Your task to perform on an android device: What's the weather? Image 0: 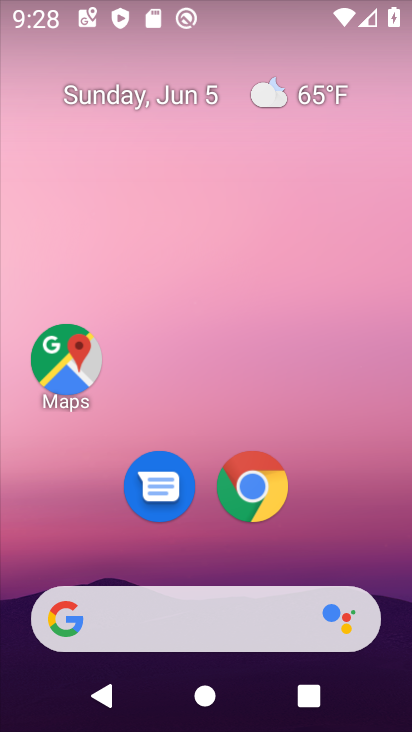
Step 0: drag from (345, 525) to (339, 215)
Your task to perform on an android device: What's the weather? Image 1: 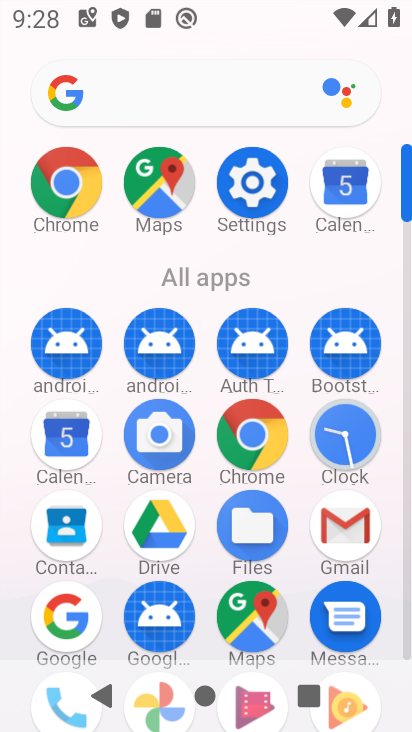
Step 1: click (78, 195)
Your task to perform on an android device: What's the weather? Image 2: 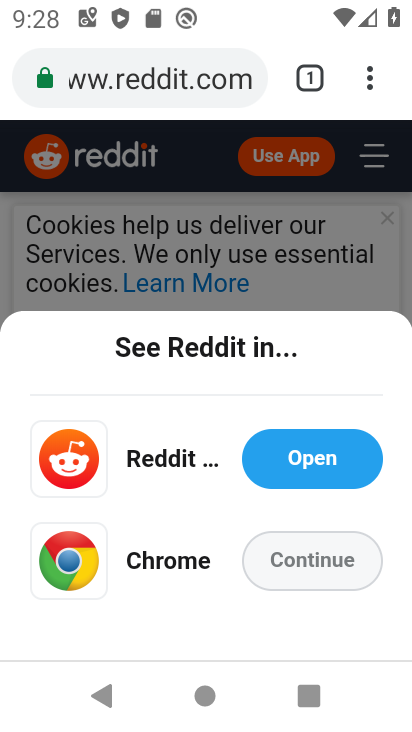
Step 2: click (233, 83)
Your task to perform on an android device: What's the weather? Image 3: 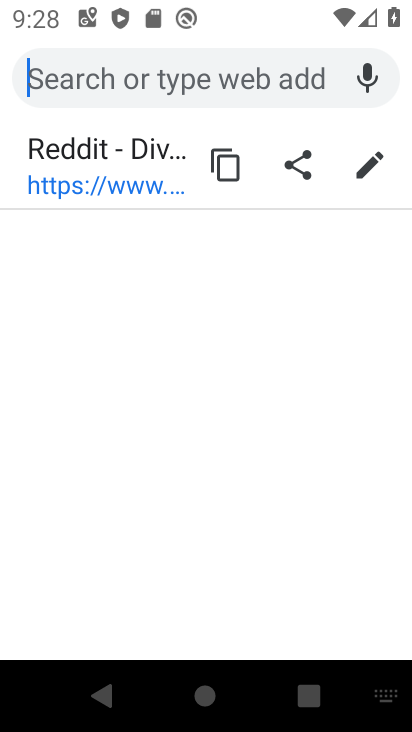
Step 3: type "what's the weather "
Your task to perform on an android device: What's the weather? Image 4: 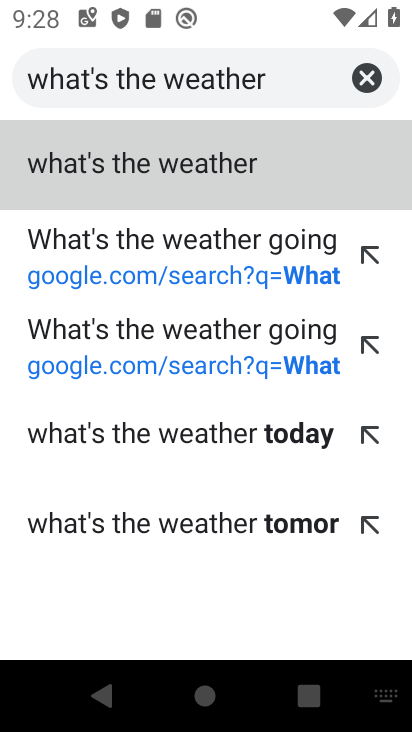
Step 4: click (223, 154)
Your task to perform on an android device: What's the weather? Image 5: 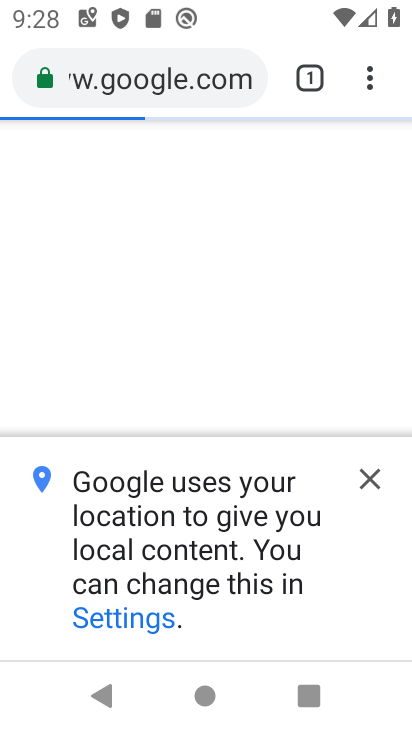
Step 5: click (373, 484)
Your task to perform on an android device: What's the weather? Image 6: 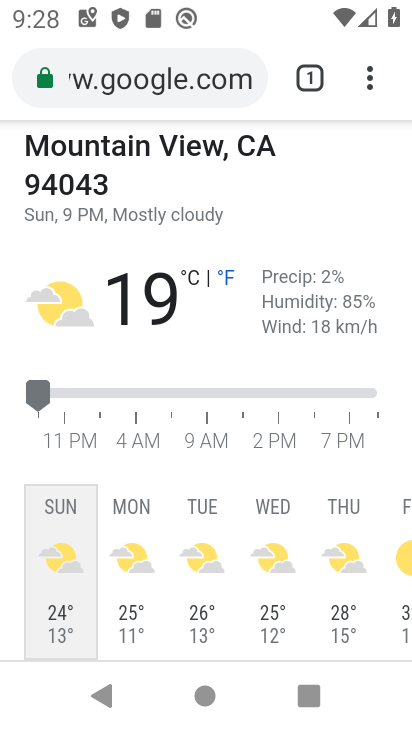
Step 6: task complete